Your task to perform on an android device: delete browsing data in the chrome app Image 0: 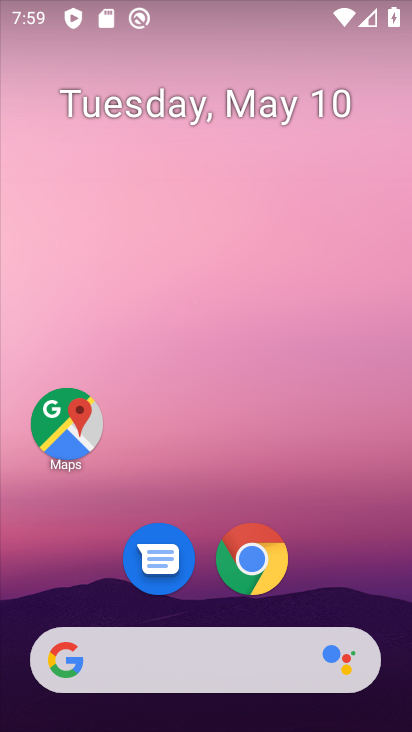
Step 0: click (269, 562)
Your task to perform on an android device: delete browsing data in the chrome app Image 1: 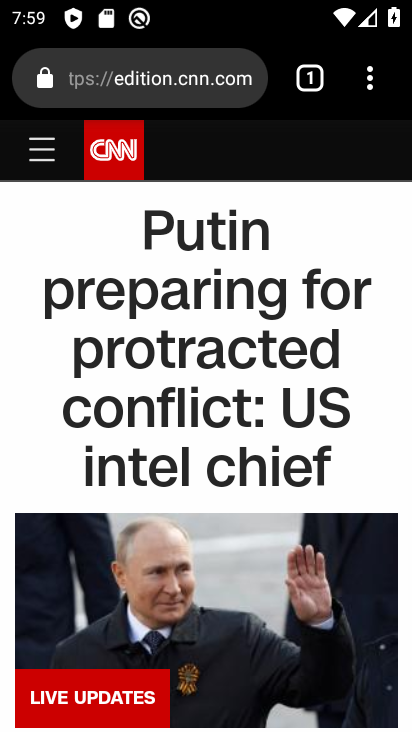
Step 1: click (371, 78)
Your task to perform on an android device: delete browsing data in the chrome app Image 2: 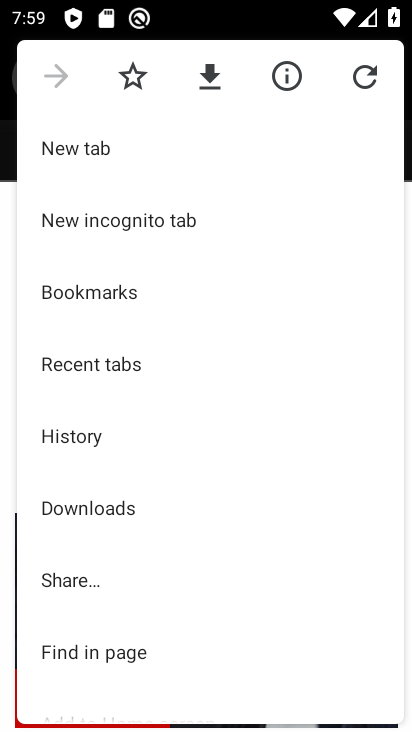
Step 2: click (91, 441)
Your task to perform on an android device: delete browsing data in the chrome app Image 3: 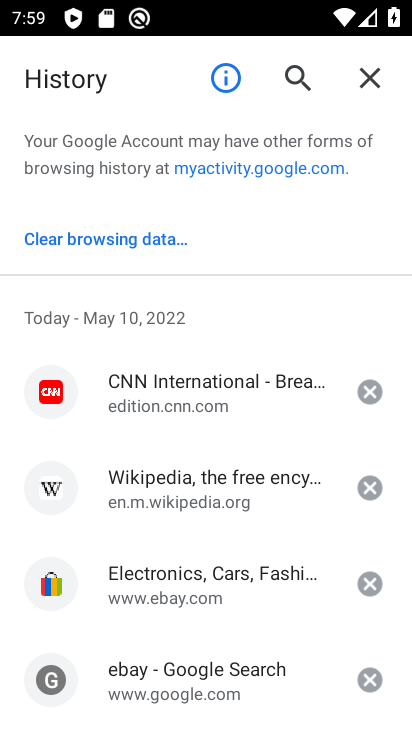
Step 3: click (153, 246)
Your task to perform on an android device: delete browsing data in the chrome app Image 4: 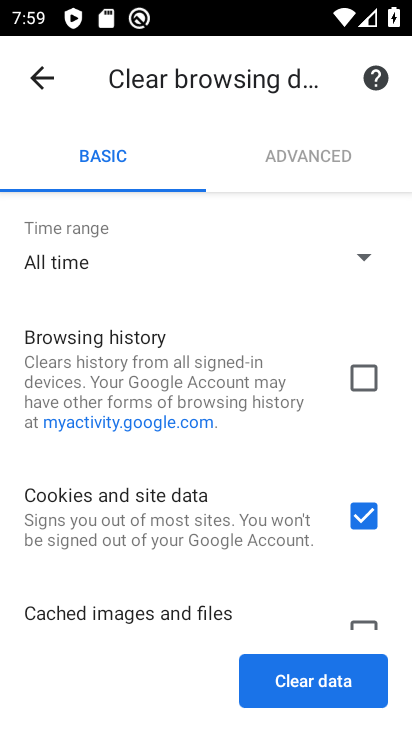
Step 4: click (354, 378)
Your task to perform on an android device: delete browsing data in the chrome app Image 5: 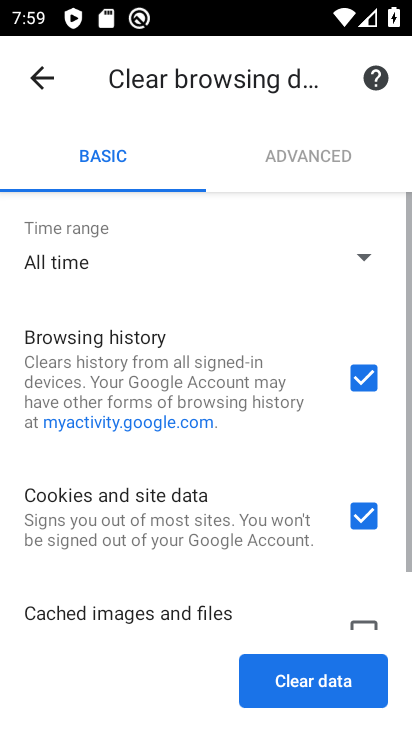
Step 5: click (351, 516)
Your task to perform on an android device: delete browsing data in the chrome app Image 6: 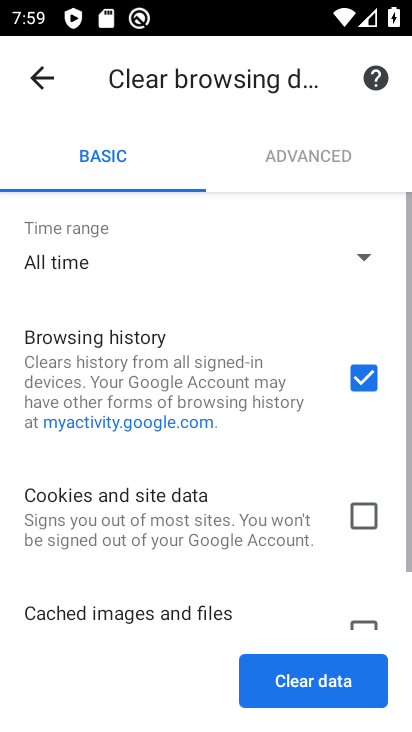
Step 6: click (333, 687)
Your task to perform on an android device: delete browsing data in the chrome app Image 7: 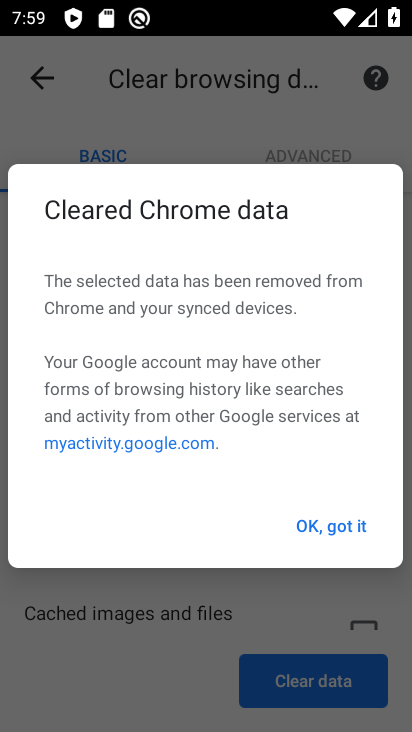
Step 7: click (354, 522)
Your task to perform on an android device: delete browsing data in the chrome app Image 8: 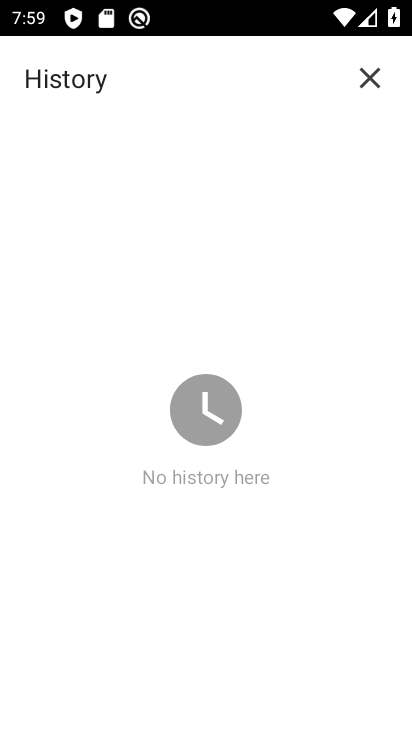
Step 8: task complete